Your task to perform on an android device: turn off priority inbox in the gmail app Image 0: 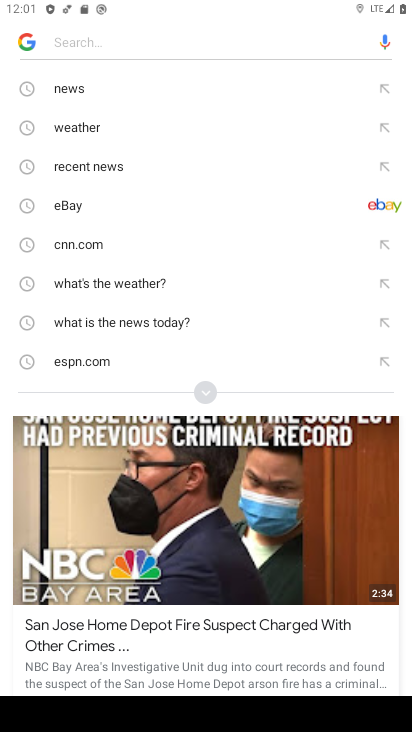
Step 0: press home button
Your task to perform on an android device: turn off priority inbox in the gmail app Image 1: 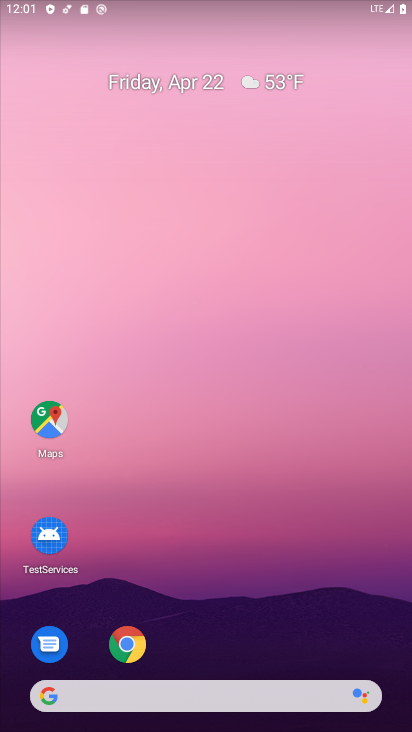
Step 1: drag from (305, 618) to (201, 132)
Your task to perform on an android device: turn off priority inbox in the gmail app Image 2: 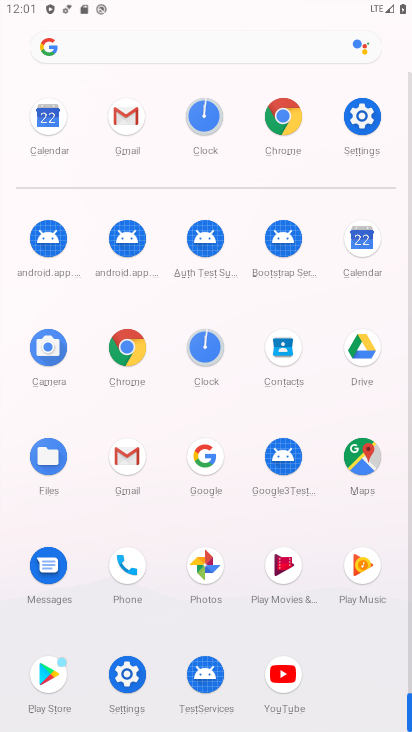
Step 2: click (129, 438)
Your task to perform on an android device: turn off priority inbox in the gmail app Image 3: 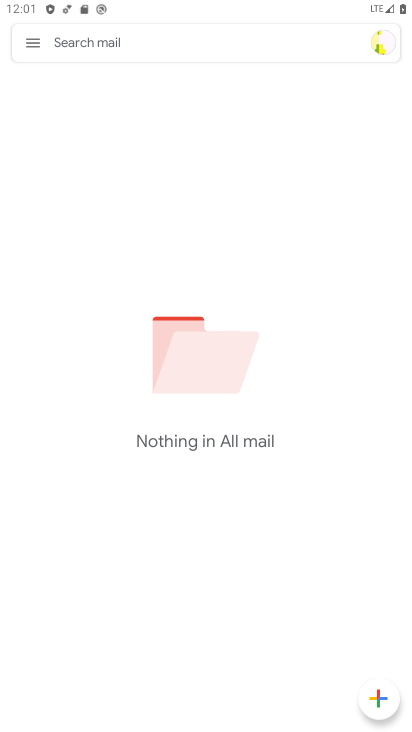
Step 3: click (37, 31)
Your task to perform on an android device: turn off priority inbox in the gmail app Image 4: 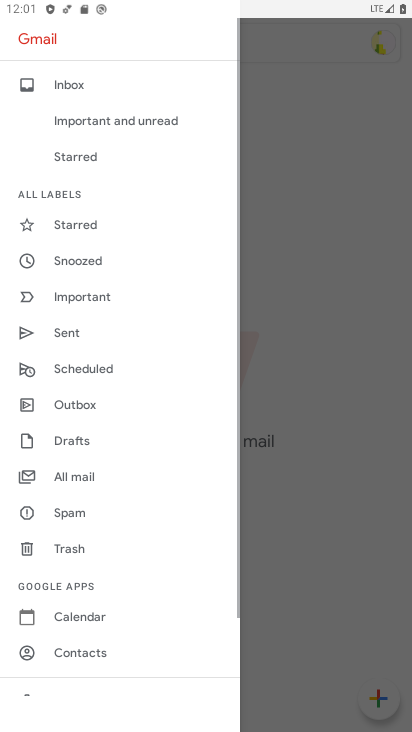
Step 4: drag from (140, 672) to (153, 225)
Your task to perform on an android device: turn off priority inbox in the gmail app Image 5: 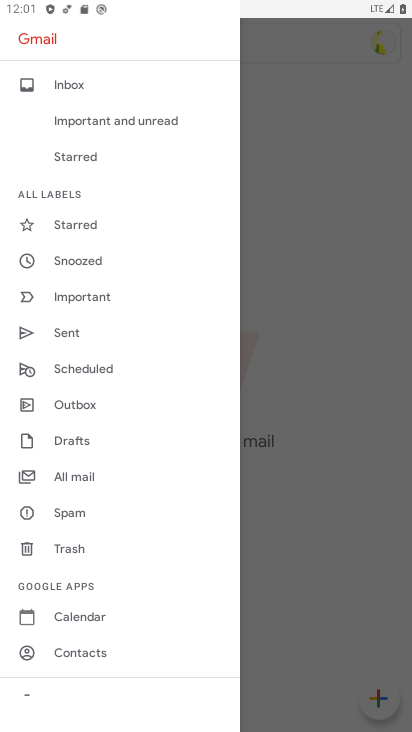
Step 5: drag from (139, 572) to (251, 185)
Your task to perform on an android device: turn off priority inbox in the gmail app Image 6: 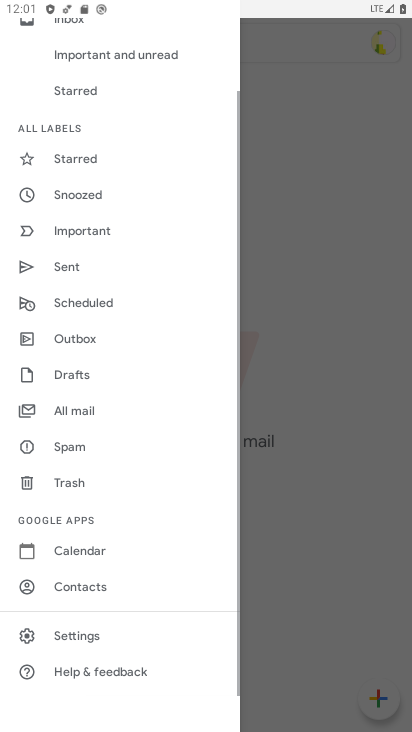
Step 6: click (76, 636)
Your task to perform on an android device: turn off priority inbox in the gmail app Image 7: 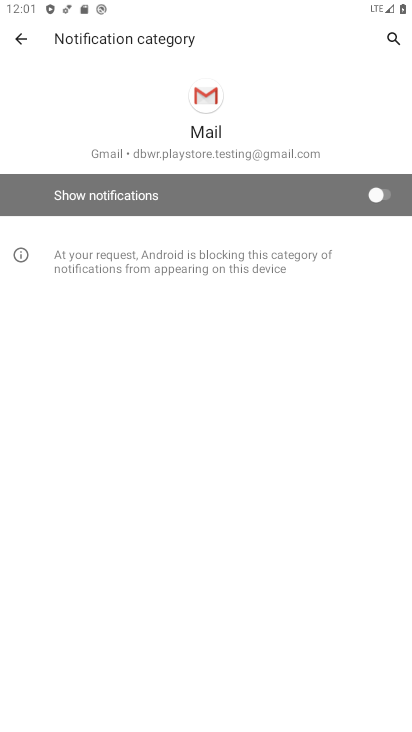
Step 7: click (24, 33)
Your task to perform on an android device: turn off priority inbox in the gmail app Image 8: 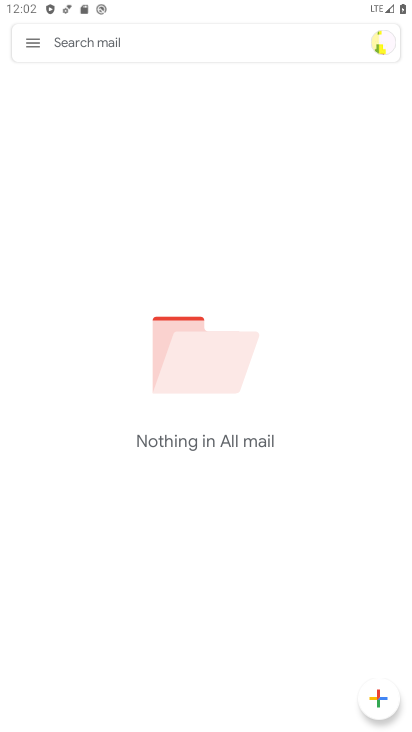
Step 8: click (32, 36)
Your task to perform on an android device: turn off priority inbox in the gmail app Image 9: 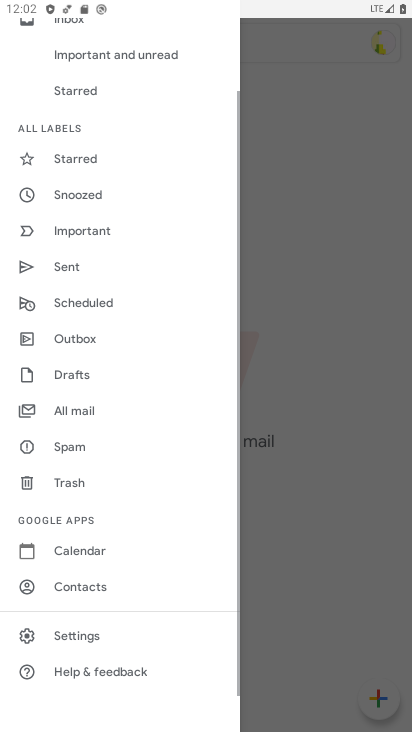
Step 9: click (85, 642)
Your task to perform on an android device: turn off priority inbox in the gmail app Image 10: 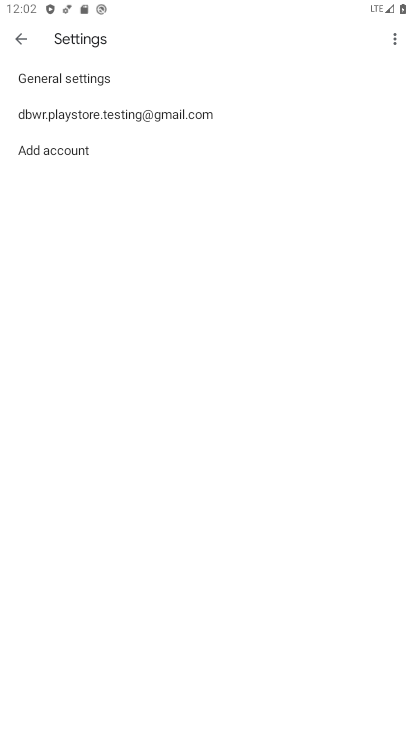
Step 10: click (99, 104)
Your task to perform on an android device: turn off priority inbox in the gmail app Image 11: 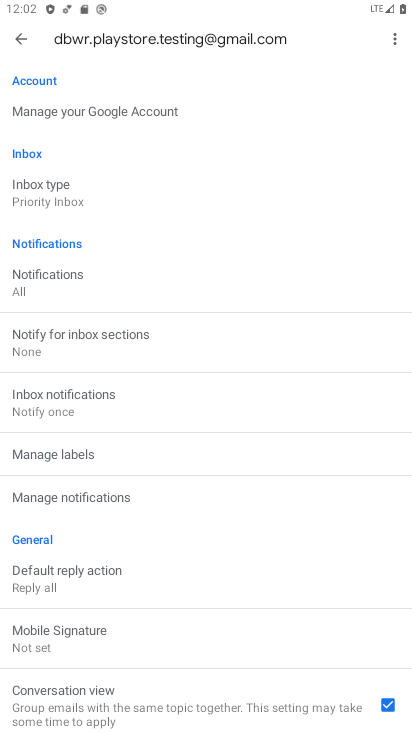
Step 11: drag from (185, 488) to (266, 22)
Your task to perform on an android device: turn off priority inbox in the gmail app Image 12: 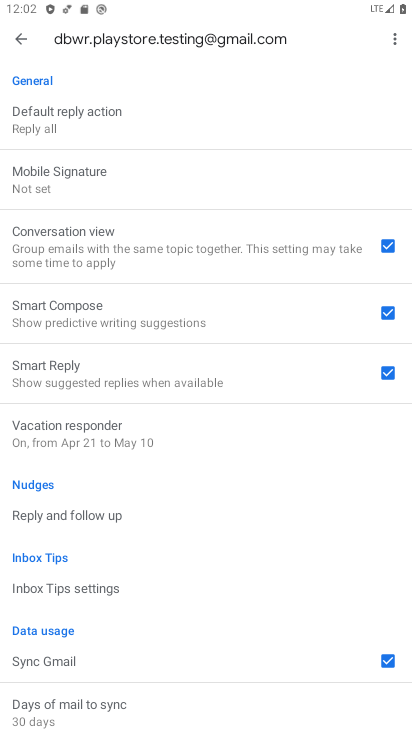
Step 12: drag from (198, 210) to (205, 728)
Your task to perform on an android device: turn off priority inbox in the gmail app Image 13: 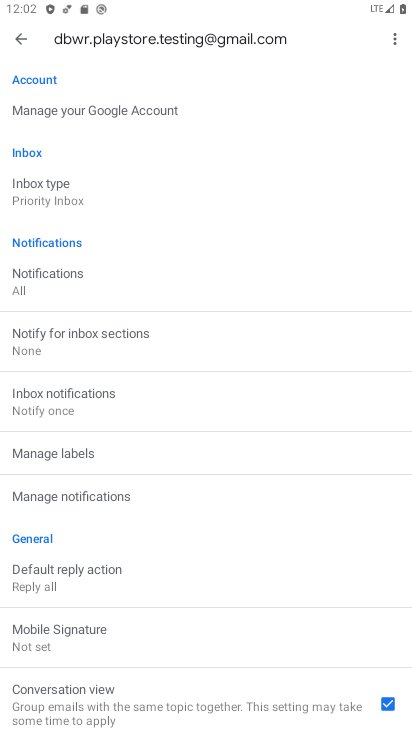
Step 13: drag from (78, 207) to (95, 460)
Your task to perform on an android device: turn off priority inbox in the gmail app Image 14: 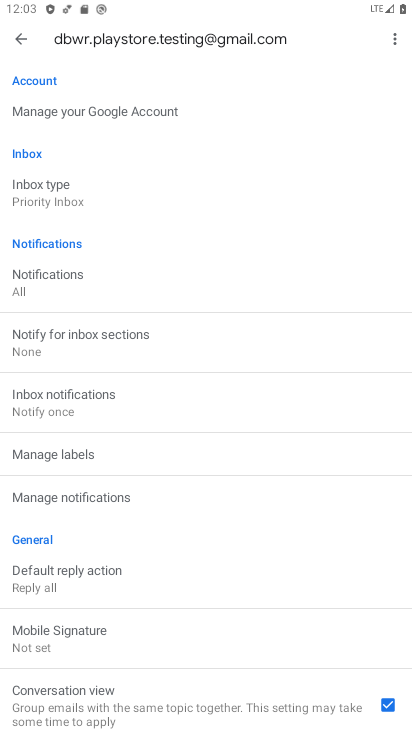
Step 14: click (67, 197)
Your task to perform on an android device: turn off priority inbox in the gmail app Image 15: 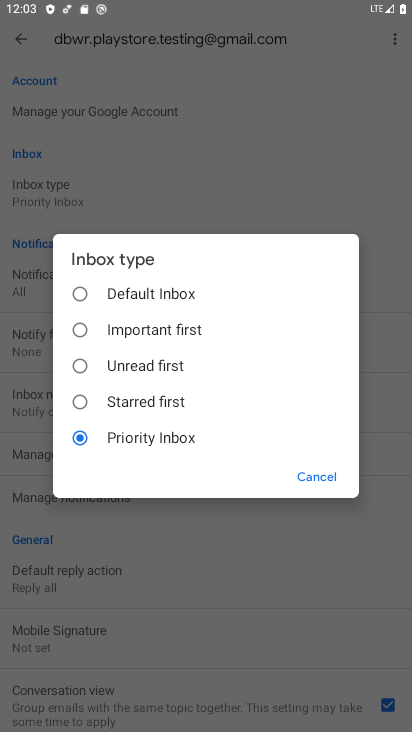
Step 15: task complete